Your task to perform on an android device: turn on the 24-hour format for clock Image 0: 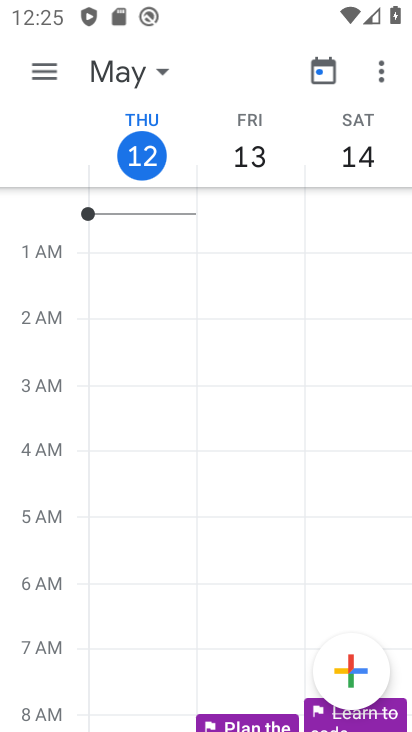
Step 0: press home button
Your task to perform on an android device: turn on the 24-hour format for clock Image 1: 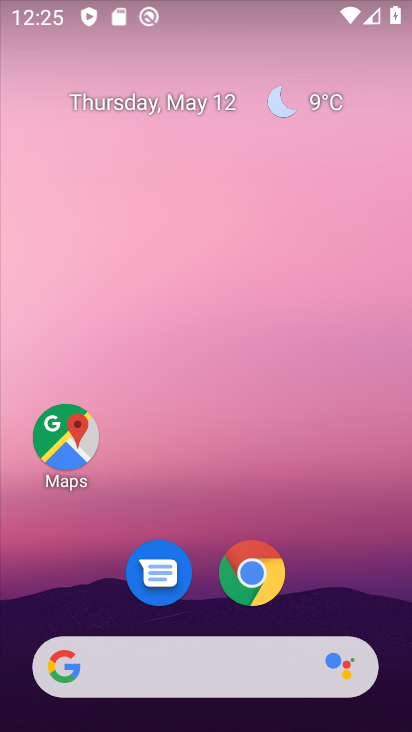
Step 1: drag from (214, 610) to (233, 0)
Your task to perform on an android device: turn on the 24-hour format for clock Image 2: 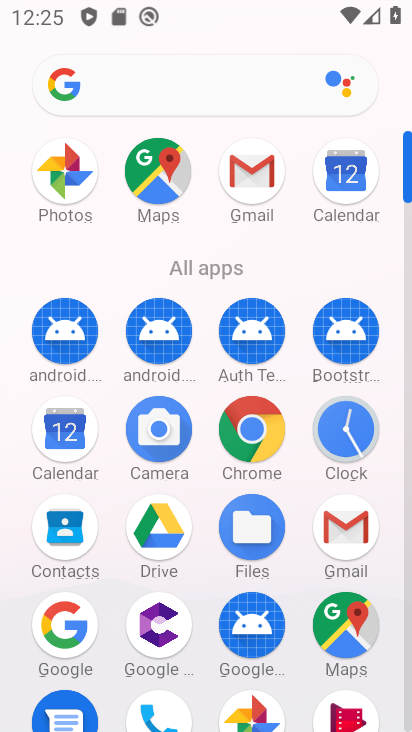
Step 2: click (349, 452)
Your task to perform on an android device: turn on the 24-hour format for clock Image 3: 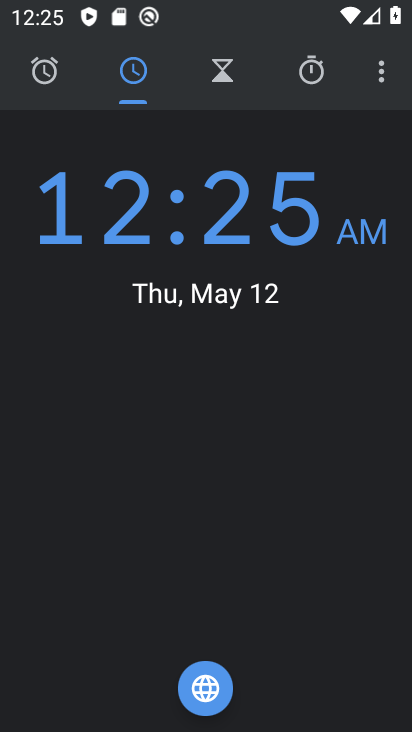
Step 3: press home button
Your task to perform on an android device: turn on the 24-hour format for clock Image 4: 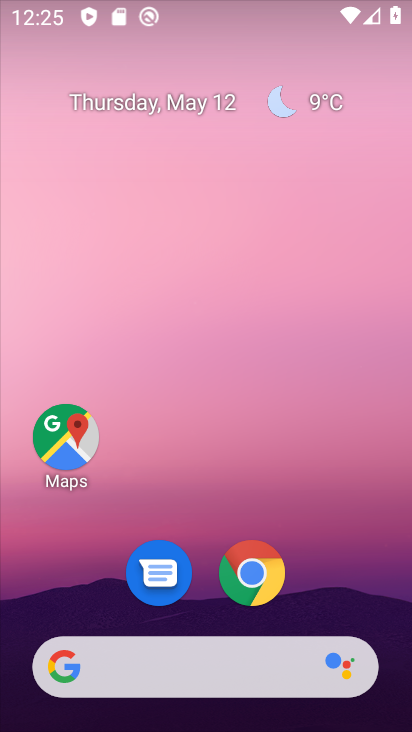
Step 4: drag from (230, 543) to (247, 22)
Your task to perform on an android device: turn on the 24-hour format for clock Image 5: 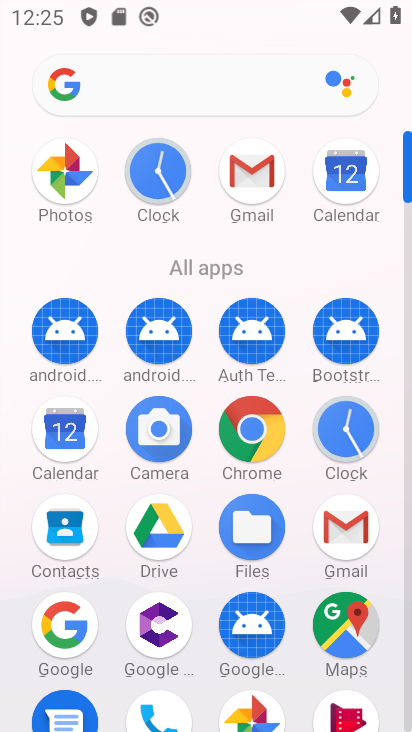
Step 5: click (338, 441)
Your task to perform on an android device: turn on the 24-hour format for clock Image 6: 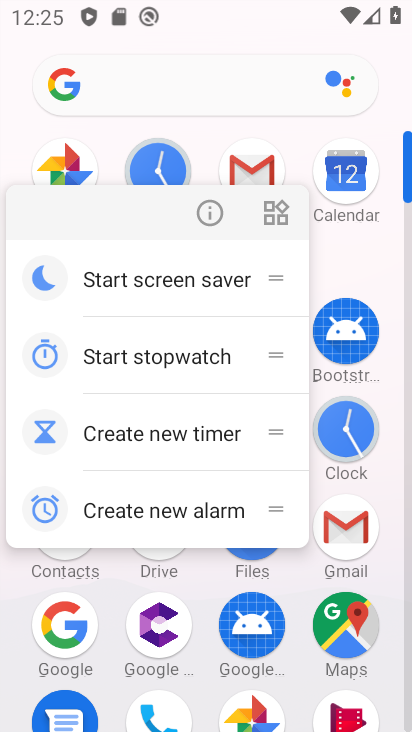
Step 6: drag from (249, 625) to (285, 183)
Your task to perform on an android device: turn on the 24-hour format for clock Image 7: 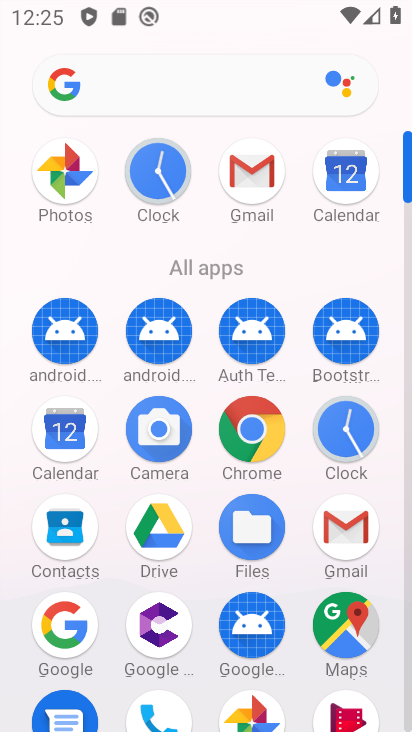
Step 7: drag from (195, 628) to (200, 248)
Your task to perform on an android device: turn on the 24-hour format for clock Image 8: 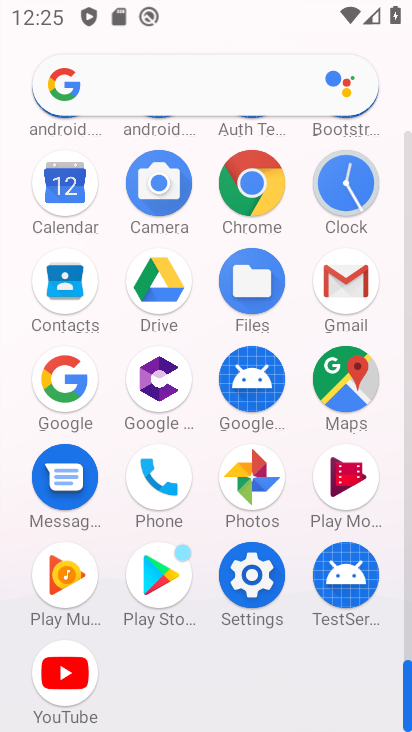
Step 8: click (255, 603)
Your task to perform on an android device: turn on the 24-hour format for clock Image 9: 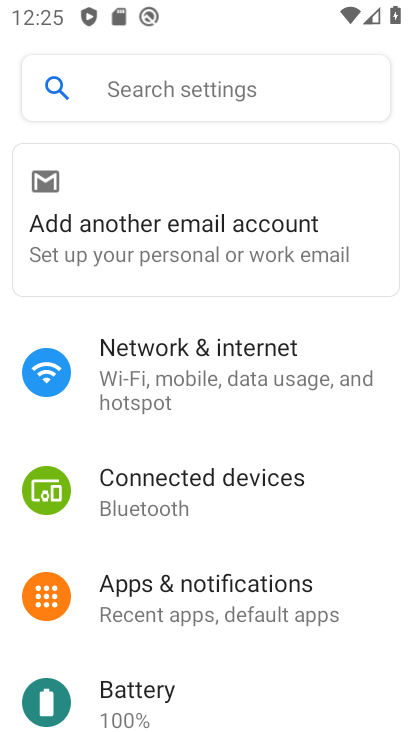
Step 9: drag from (182, 608) to (215, 119)
Your task to perform on an android device: turn on the 24-hour format for clock Image 10: 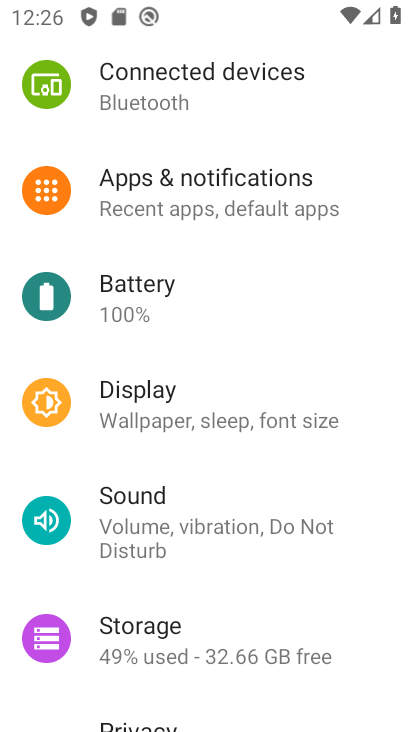
Step 10: drag from (182, 619) to (244, 182)
Your task to perform on an android device: turn on the 24-hour format for clock Image 11: 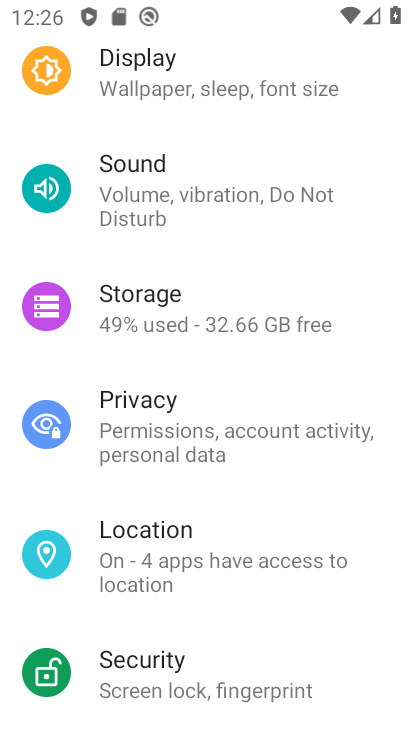
Step 11: drag from (199, 581) to (230, 395)
Your task to perform on an android device: turn on the 24-hour format for clock Image 12: 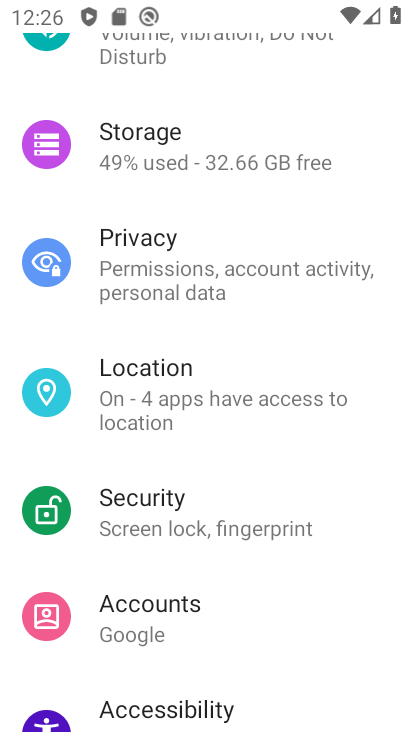
Step 12: drag from (173, 660) to (233, 276)
Your task to perform on an android device: turn on the 24-hour format for clock Image 13: 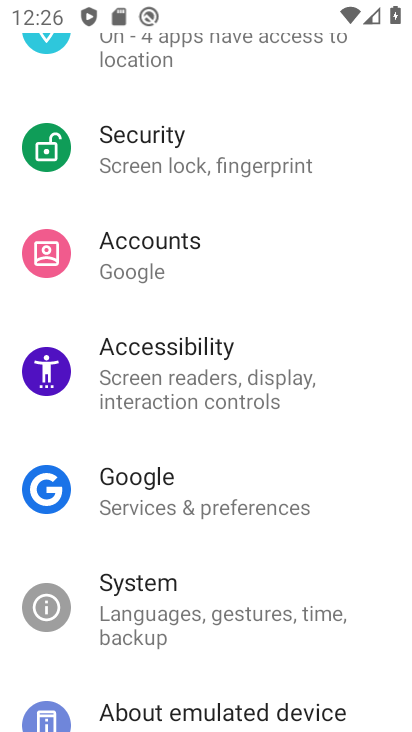
Step 13: click (237, 622)
Your task to perform on an android device: turn on the 24-hour format for clock Image 14: 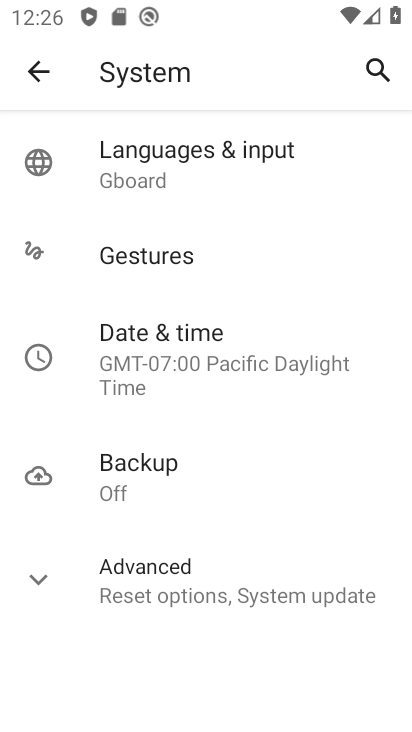
Step 14: click (170, 349)
Your task to perform on an android device: turn on the 24-hour format for clock Image 15: 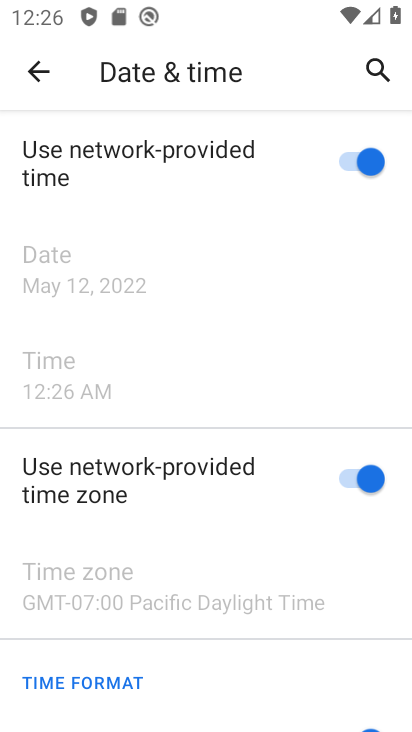
Step 15: drag from (159, 528) to (224, 76)
Your task to perform on an android device: turn on the 24-hour format for clock Image 16: 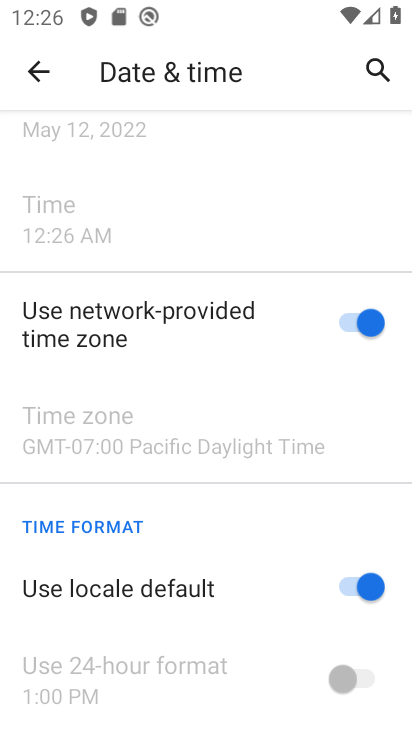
Step 16: click (335, 578)
Your task to perform on an android device: turn on the 24-hour format for clock Image 17: 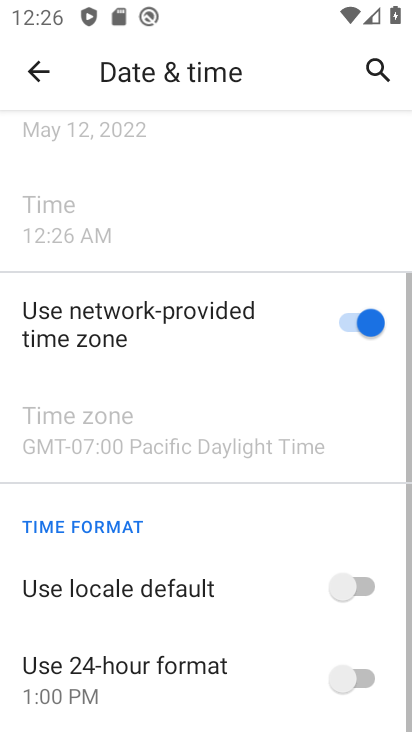
Step 17: click (368, 669)
Your task to perform on an android device: turn on the 24-hour format for clock Image 18: 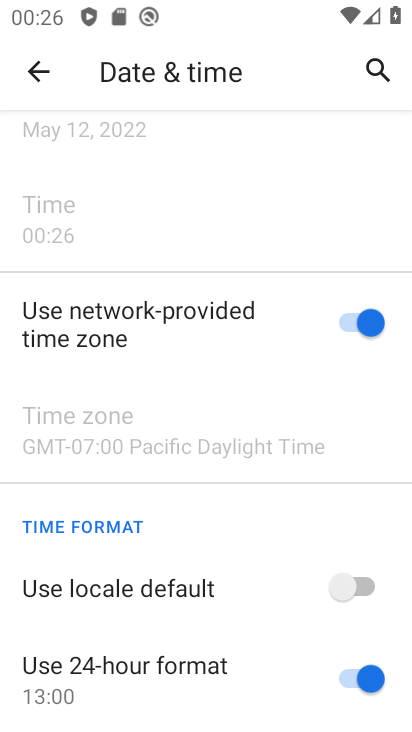
Step 18: task complete